Your task to perform on an android device: Show the shopping cart on costco. Add energizer triple a to the cart on costco Image 0: 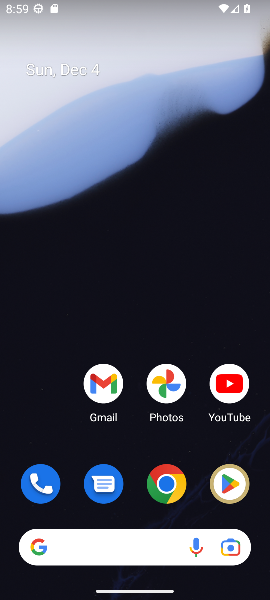
Step 0: click (171, 482)
Your task to perform on an android device: Show the shopping cart on costco. Add energizer triple a to the cart on costco Image 1: 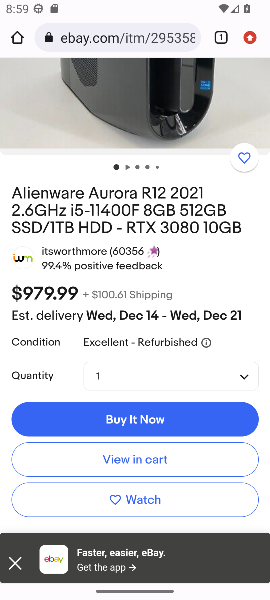
Step 1: click (118, 33)
Your task to perform on an android device: Show the shopping cart on costco. Add energizer triple a to the cart on costco Image 2: 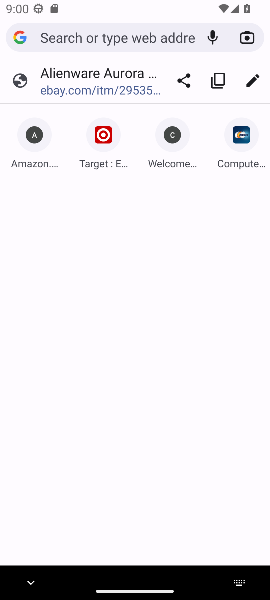
Step 2: type "costco.com"
Your task to perform on an android device: Show the shopping cart on costco. Add energizer triple a to the cart on costco Image 3: 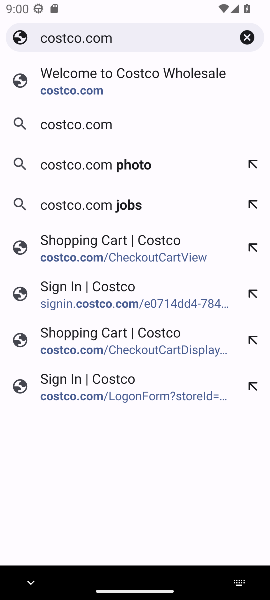
Step 3: click (68, 90)
Your task to perform on an android device: Show the shopping cart on costco. Add energizer triple a to the cart on costco Image 4: 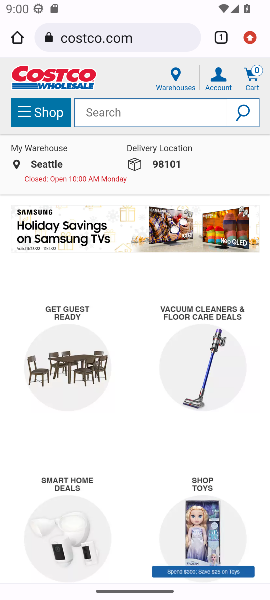
Step 4: click (255, 77)
Your task to perform on an android device: Show the shopping cart on costco. Add energizer triple a to the cart on costco Image 5: 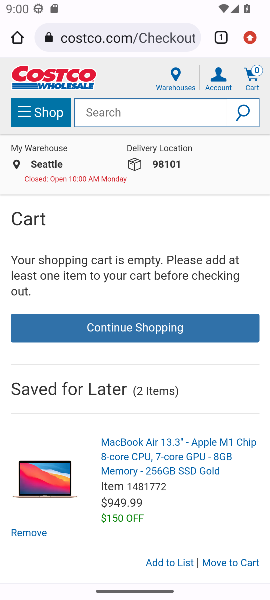
Step 5: click (99, 117)
Your task to perform on an android device: Show the shopping cart on costco. Add energizer triple a to the cart on costco Image 6: 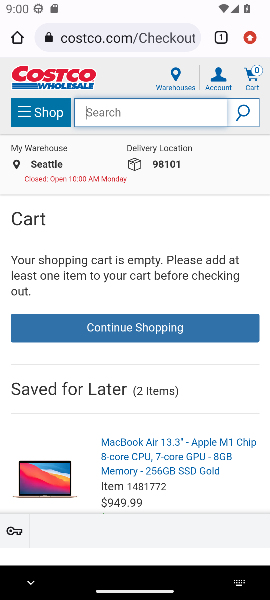
Step 6: type "energizer triple a"
Your task to perform on an android device: Show the shopping cart on costco. Add energizer triple a to the cart on costco Image 7: 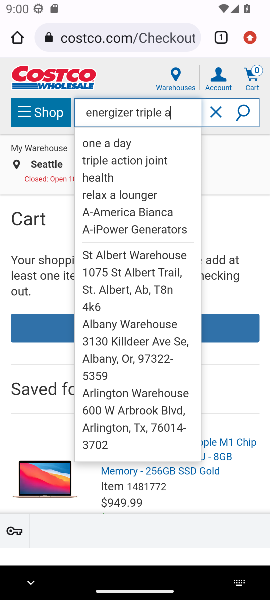
Step 7: click (242, 112)
Your task to perform on an android device: Show the shopping cart on costco. Add energizer triple a to the cart on costco Image 8: 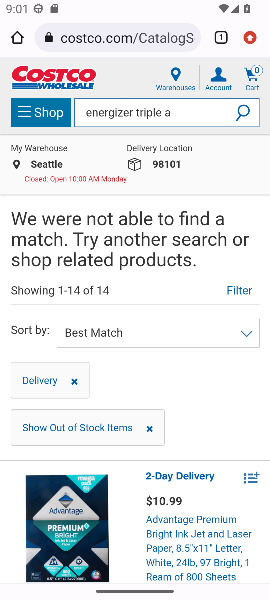
Step 8: task complete